Your task to perform on an android device: turn on translation in the chrome app Image 0: 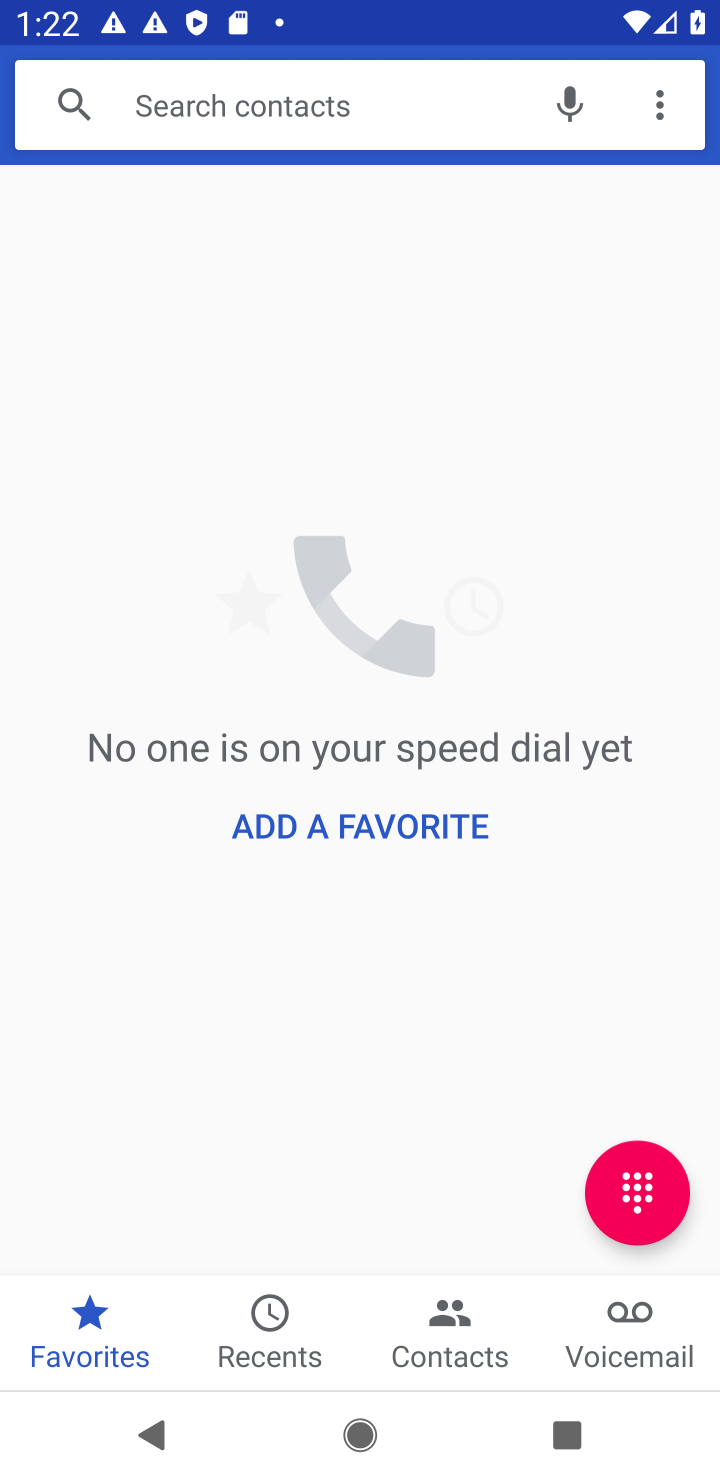
Step 0: press home button
Your task to perform on an android device: turn on translation in the chrome app Image 1: 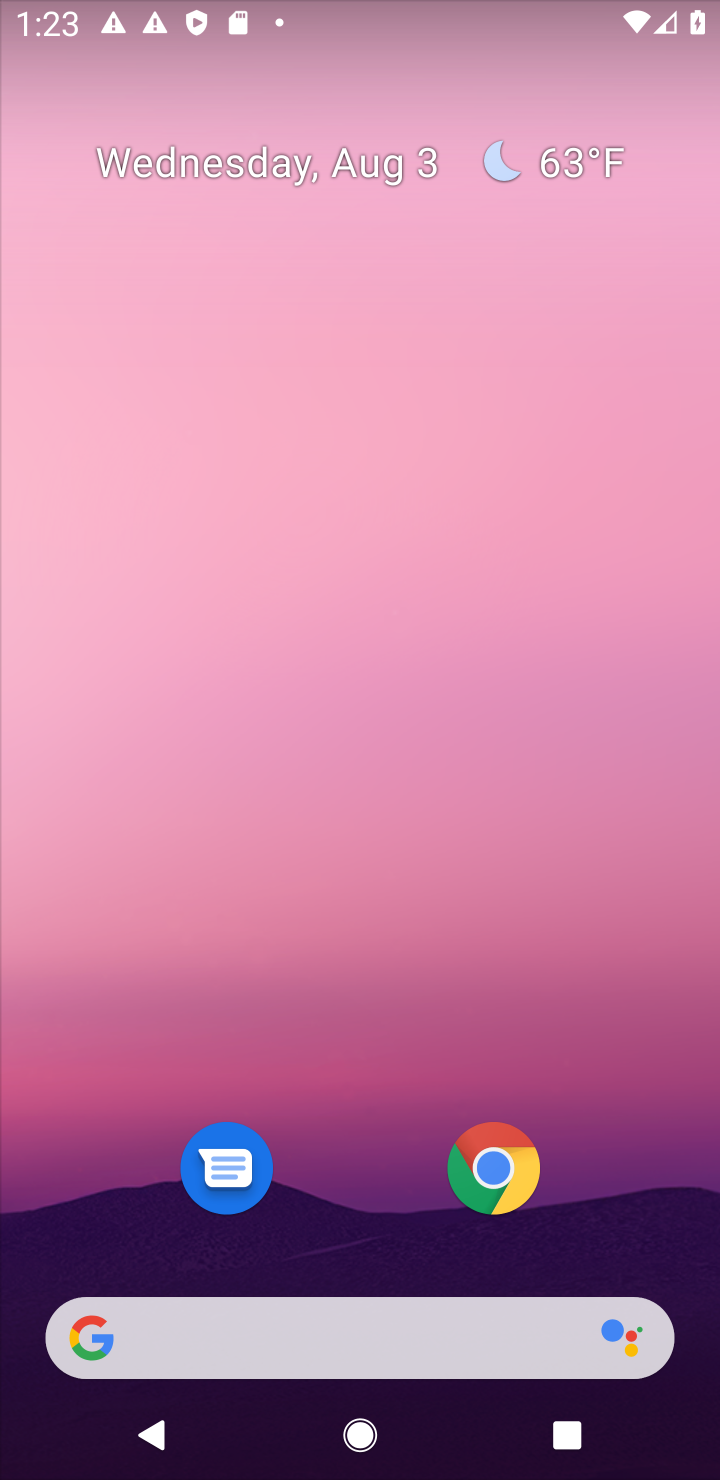
Step 1: click (497, 1172)
Your task to perform on an android device: turn on translation in the chrome app Image 2: 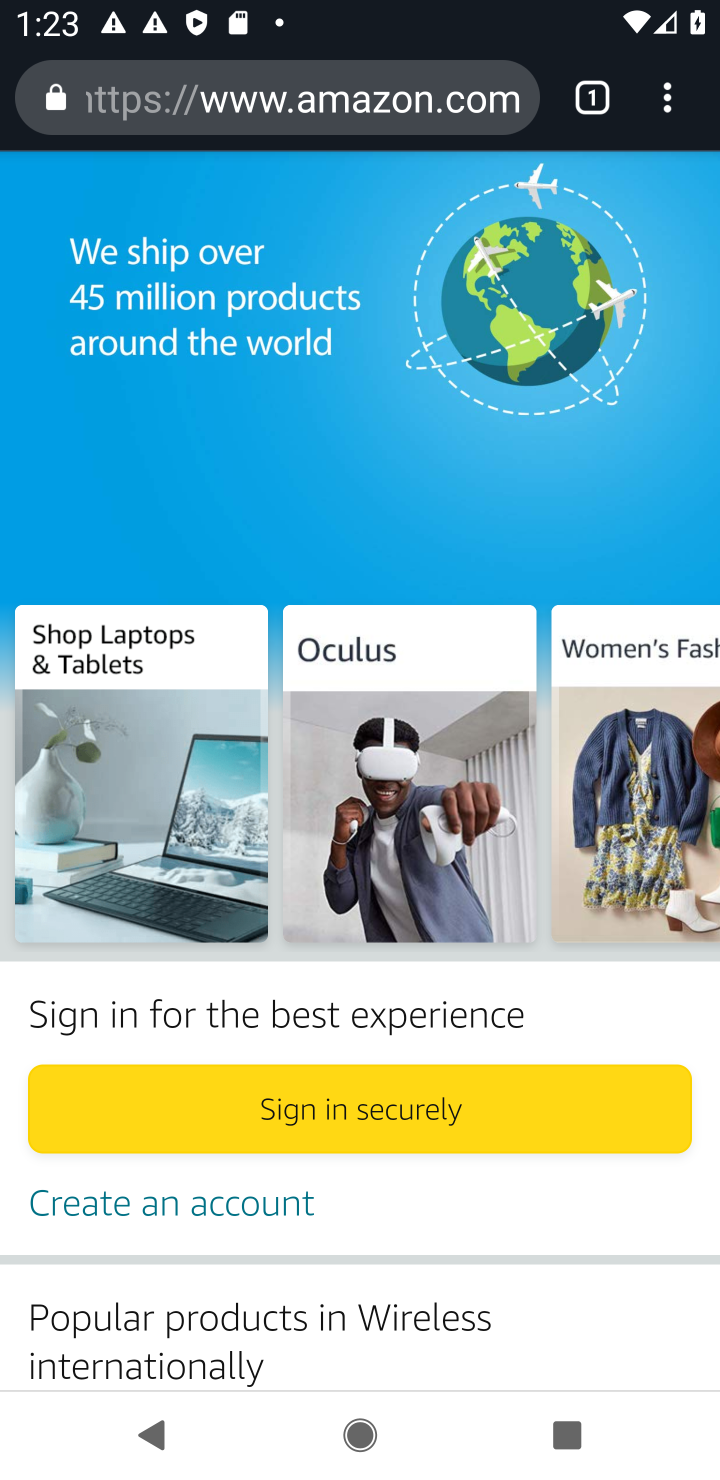
Step 2: click (669, 118)
Your task to perform on an android device: turn on translation in the chrome app Image 3: 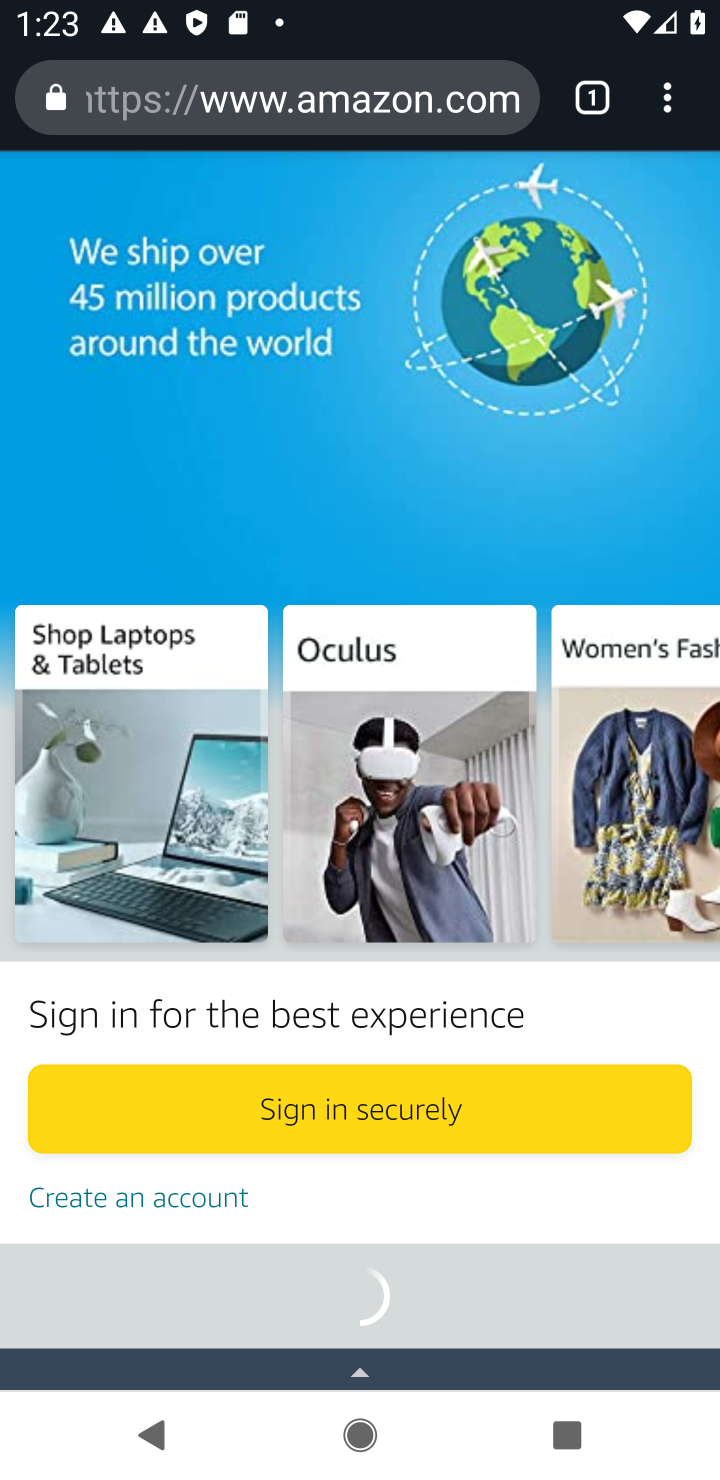
Step 3: click (648, 117)
Your task to perform on an android device: turn on translation in the chrome app Image 4: 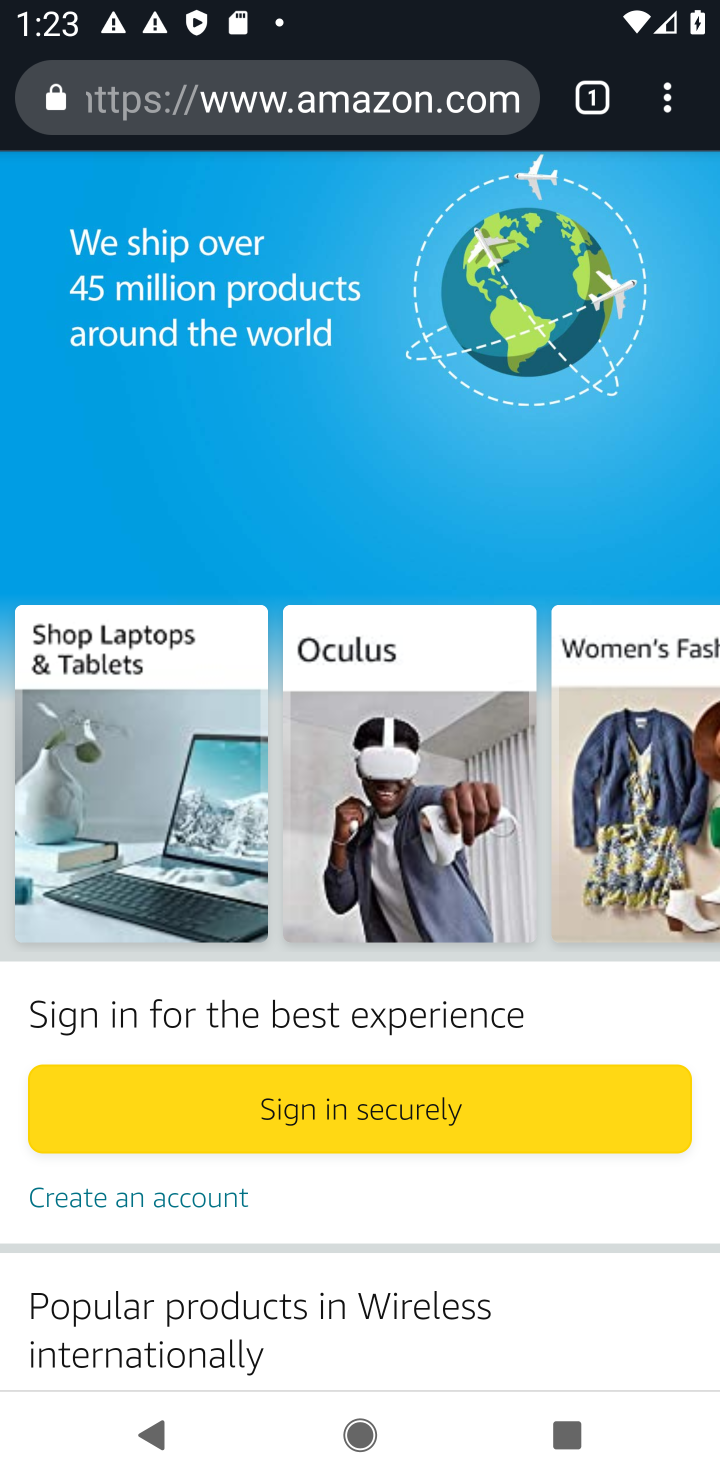
Step 4: click (677, 122)
Your task to perform on an android device: turn on translation in the chrome app Image 5: 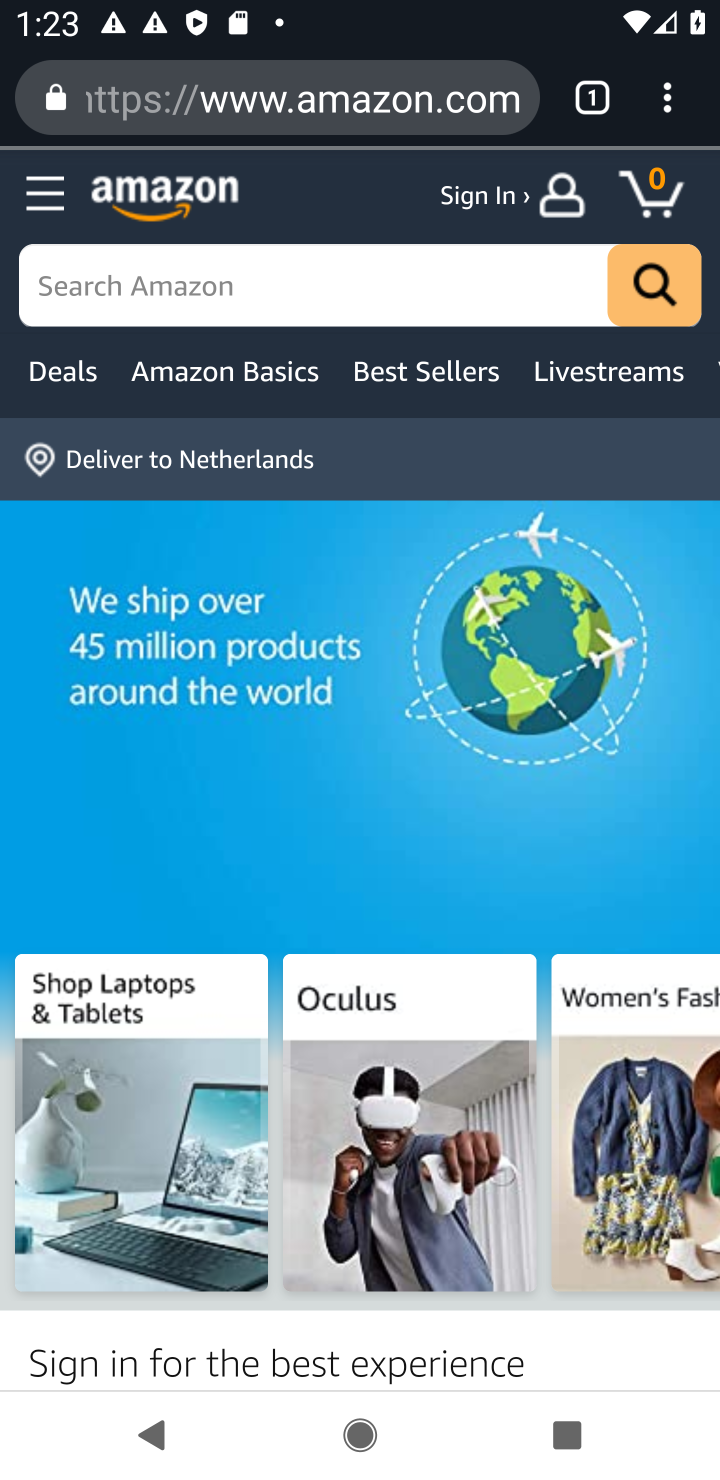
Step 5: task complete